Your task to perform on an android device: Show me the alarms in the clock app Image 0: 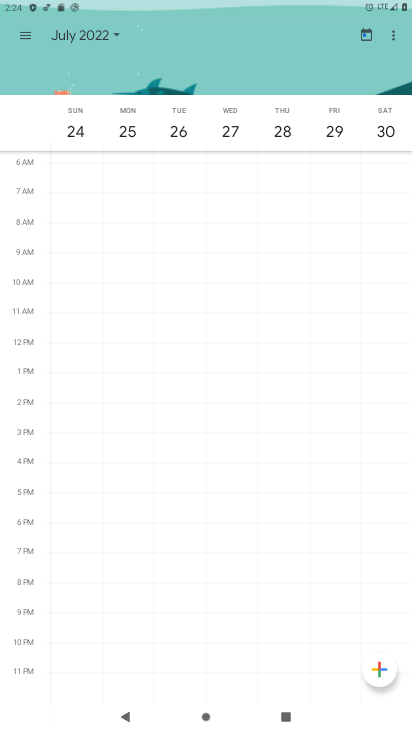
Step 0: press home button
Your task to perform on an android device: Show me the alarms in the clock app Image 1: 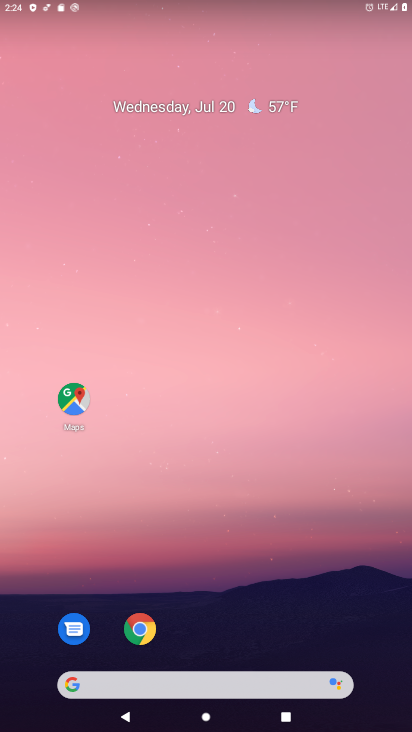
Step 1: drag from (398, 666) to (306, 56)
Your task to perform on an android device: Show me the alarms in the clock app Image 2: 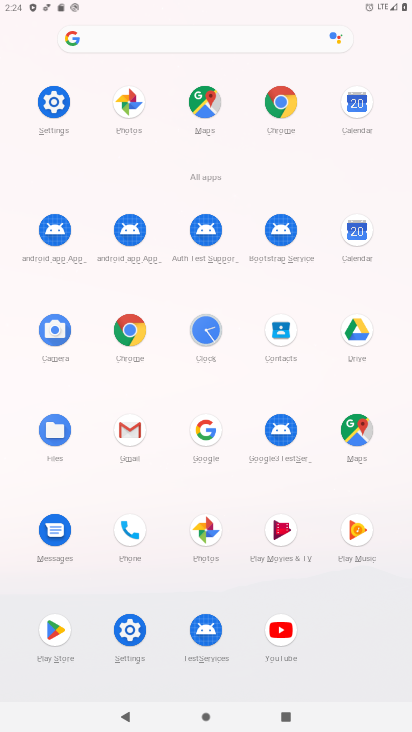
Step 2: click (203, 328)
Your task to perform on an android device: Show me the alarms in the clock app Image 3: 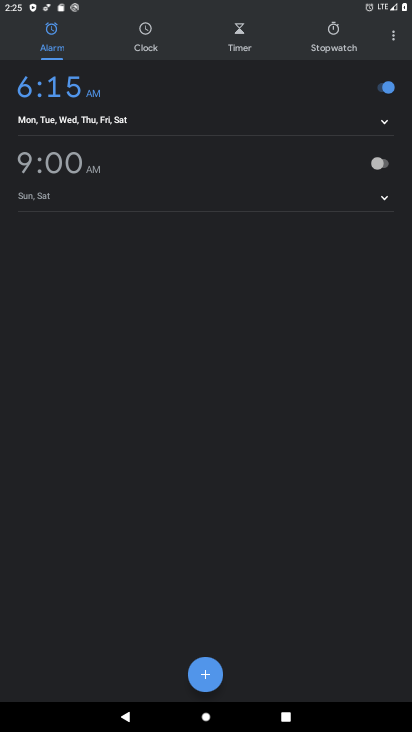
Step 3: task complete